Your task to perform on an android device: turn off data saver in the chrome app Image 0: 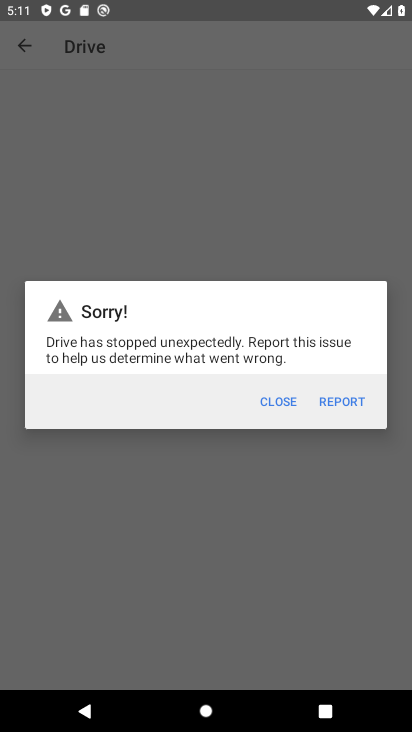
Step 0: press home button
Your task to perform on an android device: turn off data saver in the chrome app Image 1: 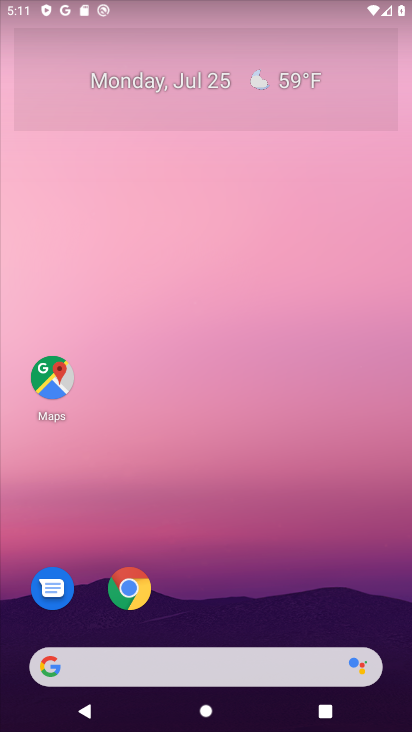
Step 1: click (134, 588)
Your task to perform on an android device: turn off data saver in the chrome app Image 2: 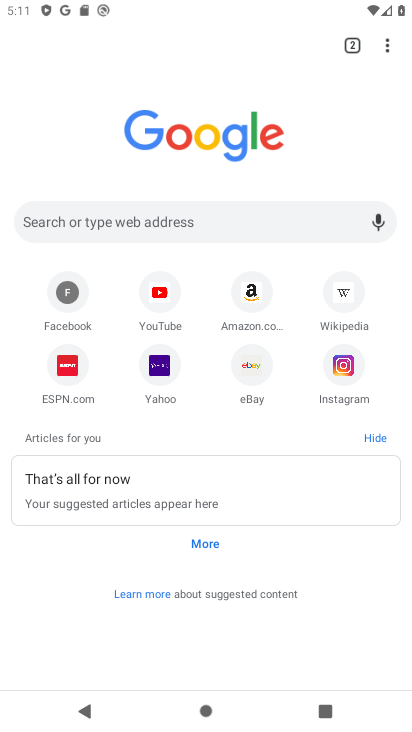
Step 2: click (388, 44)
Your task to perform on an android device: turn off data saver in the chrome app Image 3: 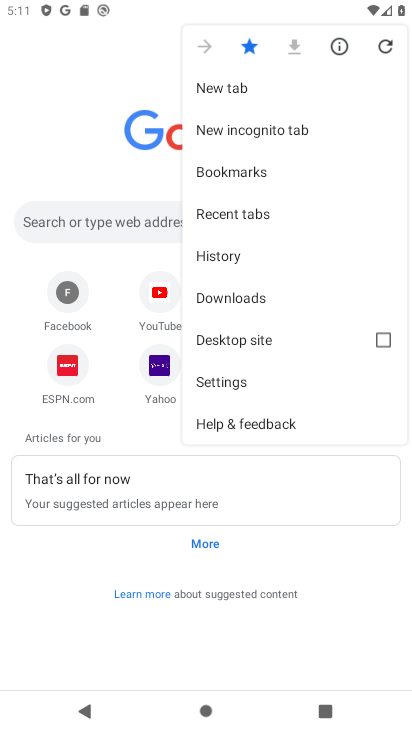
Step 3: click (229, 377)
Your task to perform on an android device: turn off data saver in the chrome app Image 4: 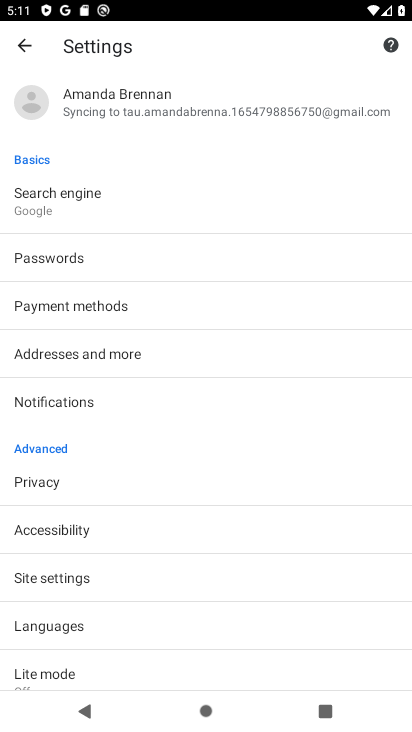
Step 4: task complete